Your task to perform on an android device: change the clock style Image 0: 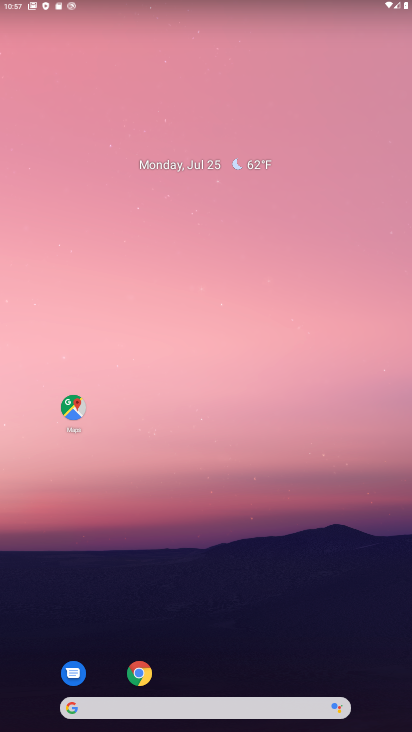
Step 0: drag from (250, 637) to (292, 7)
Your task to perform on an android device: change the clock style Image 1: 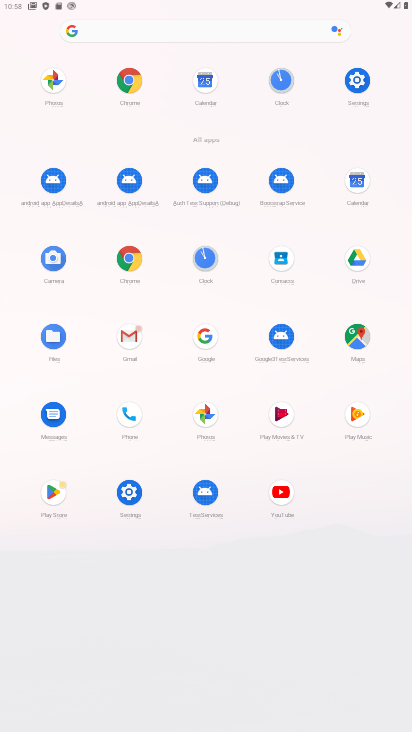
Step 1: click (204, 263)
Your task to perform on an android device: change the clock style Image 2: 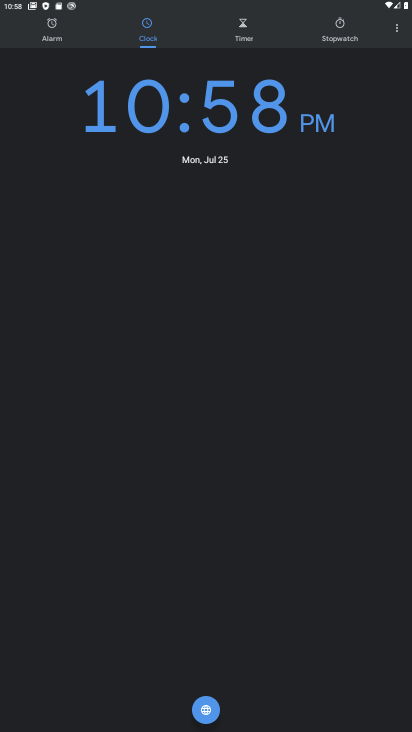
Step 2: click (396, 29)
Your task to perform on an android device: change the clock style Image 3: 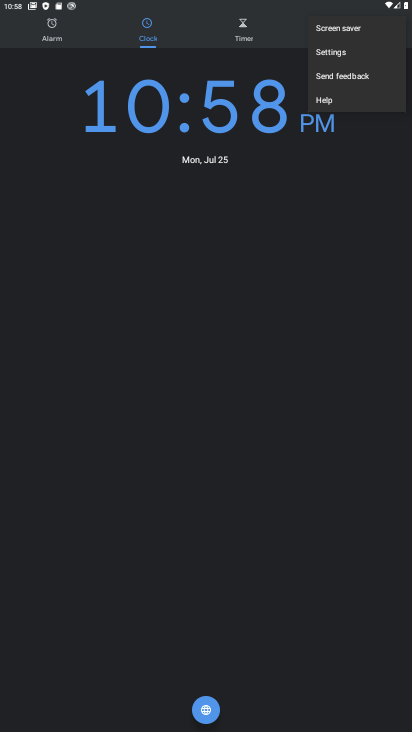
Step 3: click (340, 51)
Your task to perform on an android device: change the clock style Image 4: 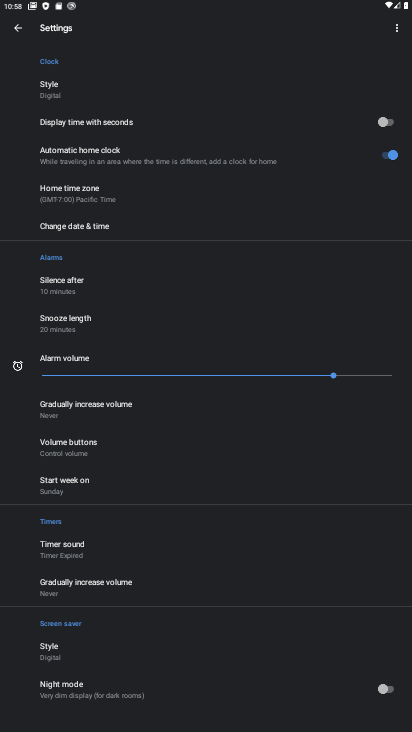
Step 4: click (50, 96)
Your task to perform on an android device: change the clock style Image 5: 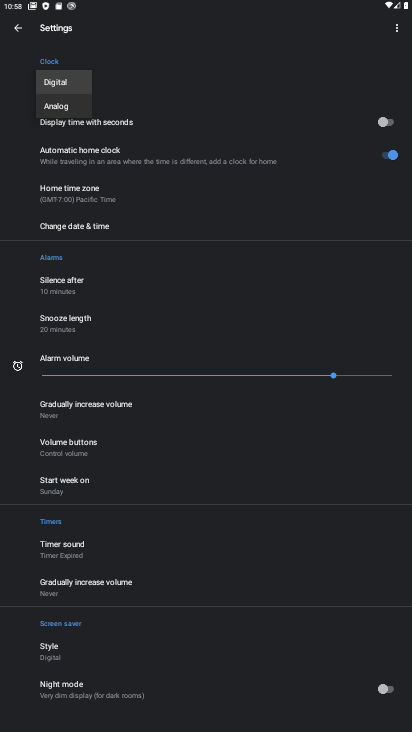
Step 5: click (58, 111)
Your task to perform on an android device: change the clock style Image 6: 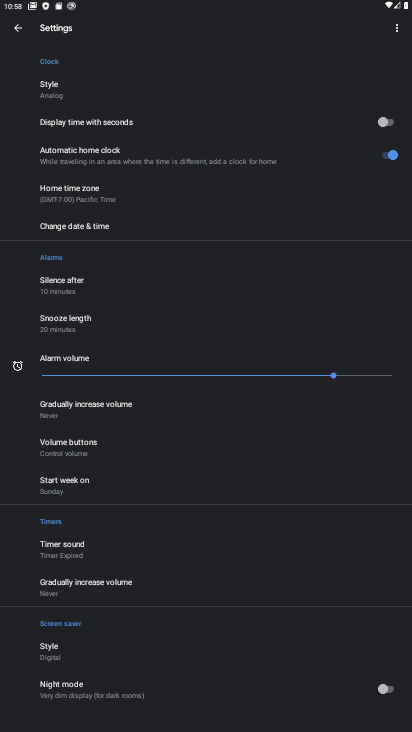
Step 6: task complete